Your task to perform on an android device: Open calendar and show me the second week of next month Image 0: 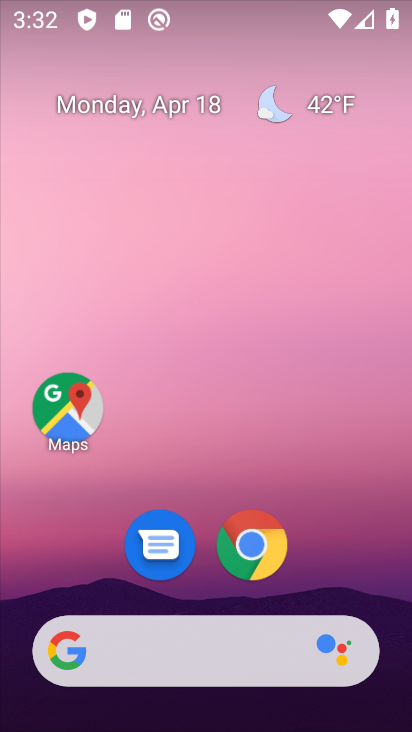
Step 0: drag from (335, 493) to (337, 95)
Your task to perform on an android device: Open calendar and show me the second week of next month Image 1: 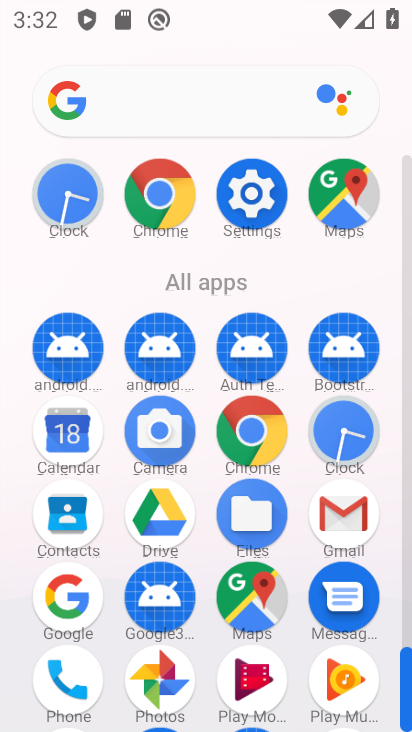
Step 1: click (76, 446)
Your task to perform on an android device: Open calendar and show me the second week of next month Image 2: 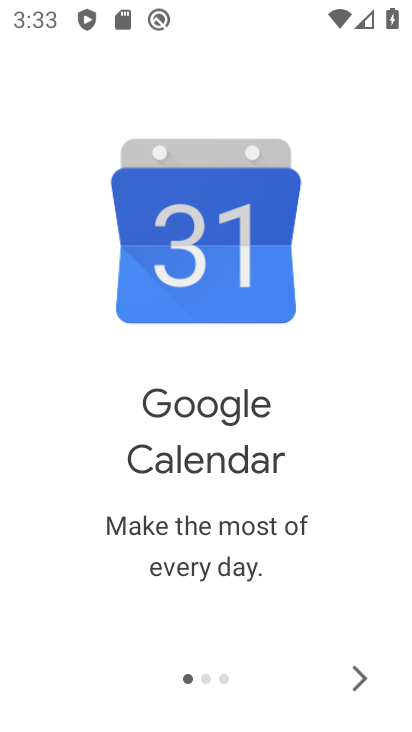
Step 2: click (355, 678)
Your task to perform on an android device: Open calendar and show me the second week of next month Image 3: 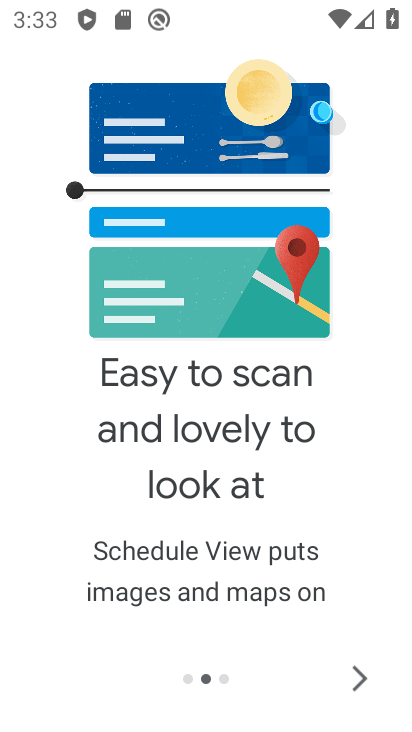
Step 3: click (355, 678)
Your task to perform on an android device: Open calendar and show me the second week of next month Image 4: 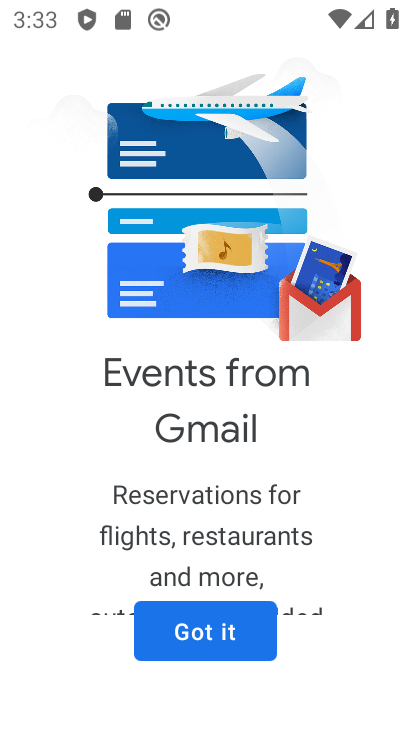
Step 4: click (267, 631)
Your task to perform on an android device: Open calendar and show me the second week of next month Image 5: 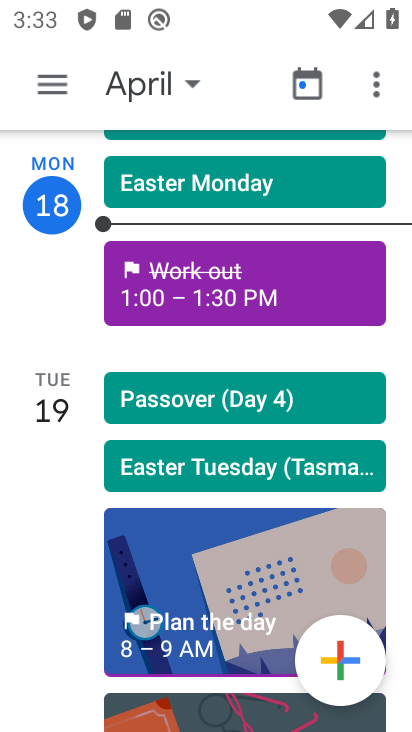
Step 5: click (188, 78)
Your task to perform on an android device: Open calendar and show me the second week of next month Image 6: 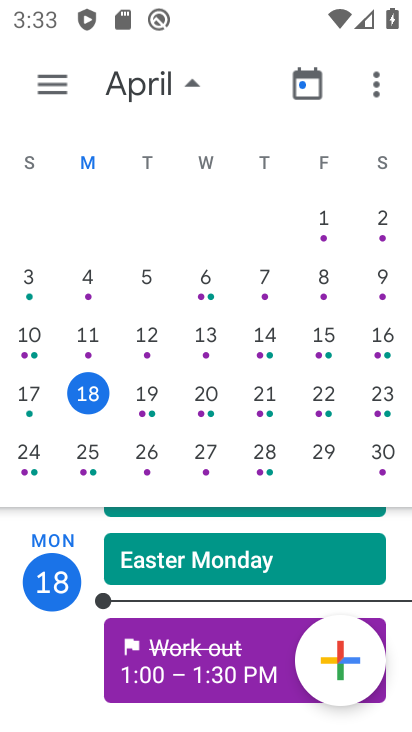
Step 6: drag from (398, 363) to (27, 370)
Your task to perform on an android device: Open calendar and show me the second week of next month Image 7: 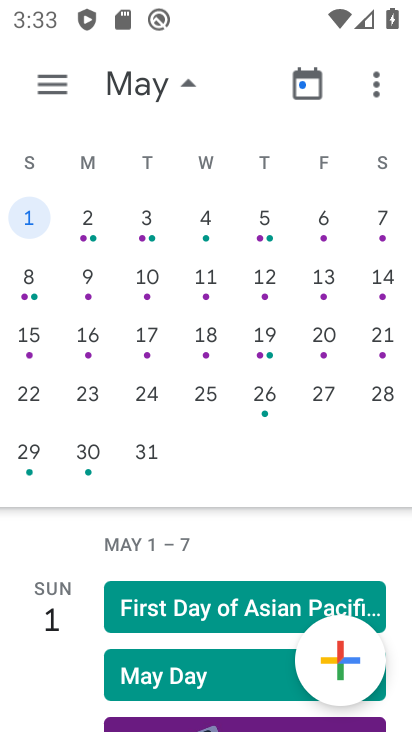
Step 7: click (141, 278)
Your task to perform on an android device: Open calendar and show me the second week of next month Image 8: 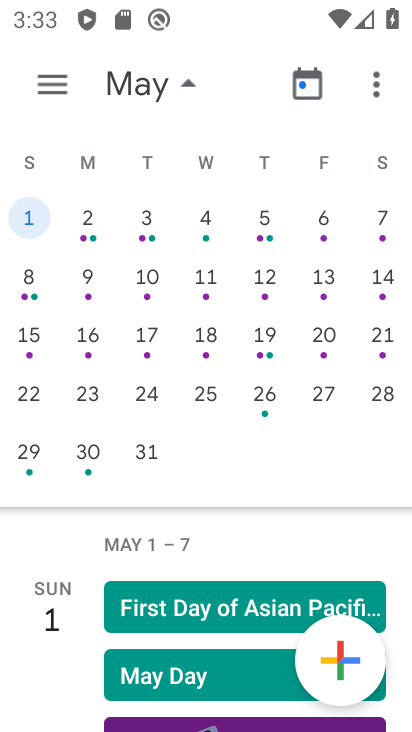
Step 8: click (146, 280)
Your task to perform on an android device: Open calendar and show me the second week of next month Image 9: 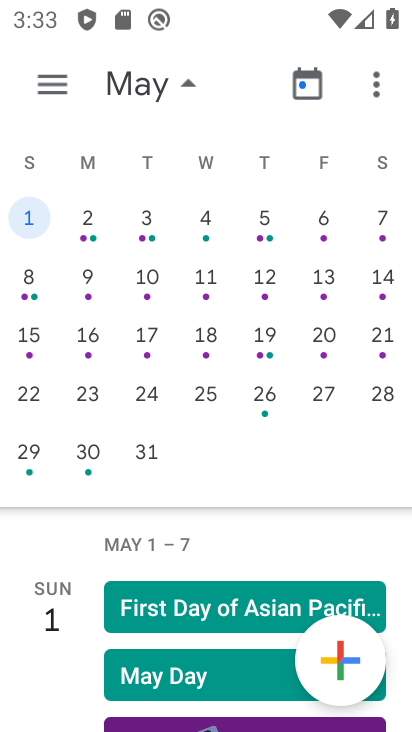
Step 9: click (149, 272)
Your task to perform on an android device: Open calendar and show me the second week of next month Image 10: 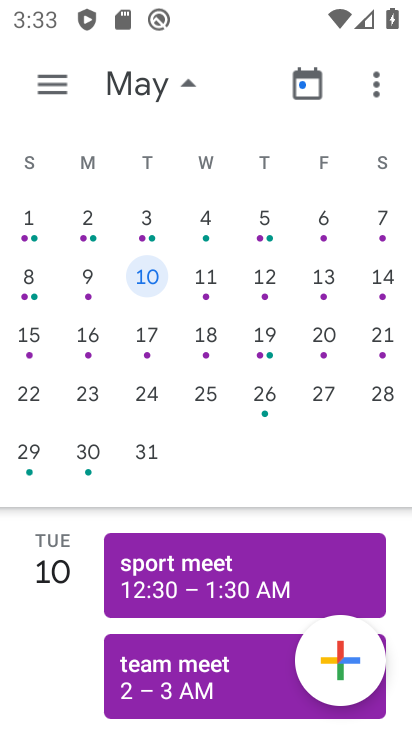
Step 10: task complete